Your task to perform on an android device: allow notifications from all sites in the chrome app Image 0: 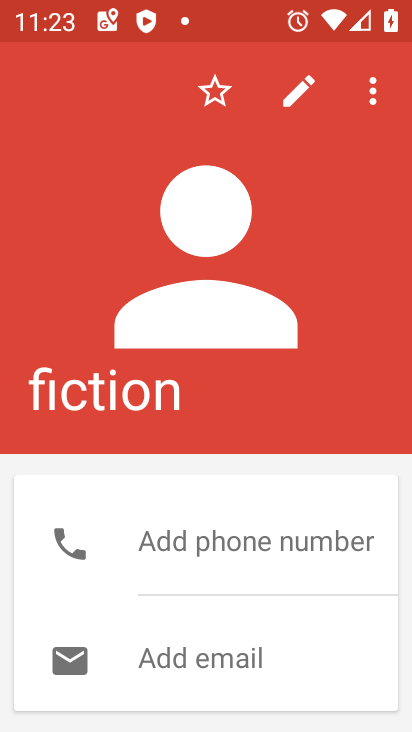
Step 0: press home button
Your task to perform on an android device: allow notifications from all sites in the chrome app Image 1: 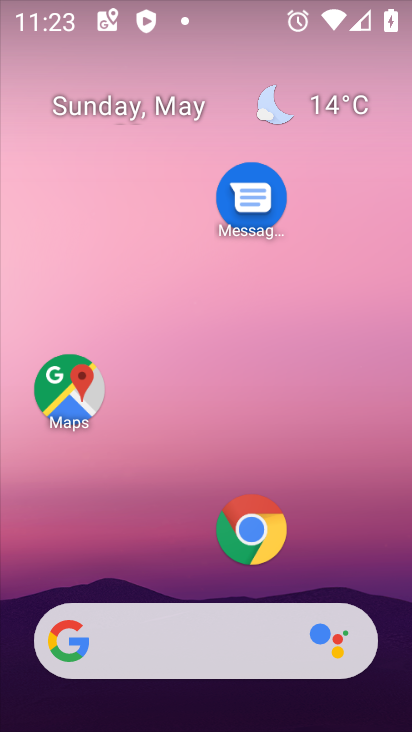
Step 1: click (236, 545)
Your task to perform on an android device: allow notifications from all sites in the chrome app Image 2: 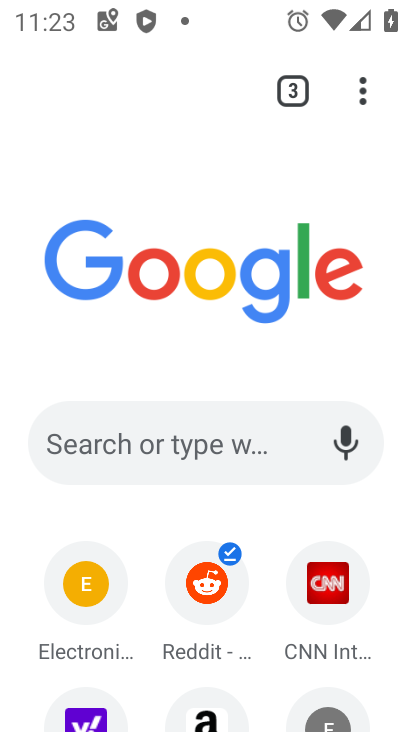
Step 2: click (354, 94)
Your task to perform on an android device: allow notifications from all sites in the chrome app Image 3: 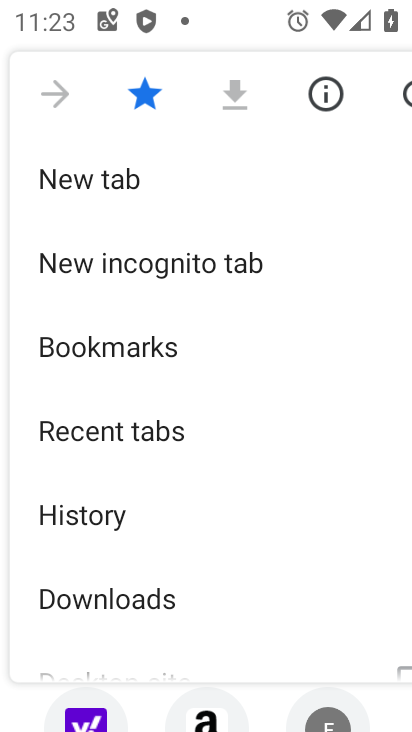
Step 3: drag from (132, 481) to (167, 255)
Your task to perform on an android device: allow notifications from all sites in the chrome app Image 4: 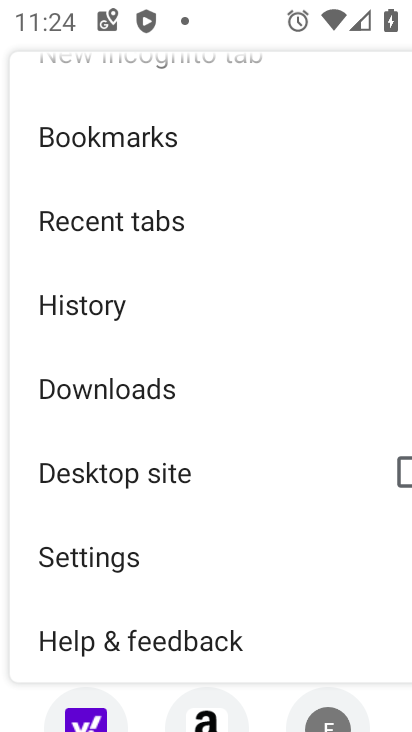
Step 4: click (123, 546)
Your task to perform on an android device: allow notifications from all sites in the chrome app Image 5: 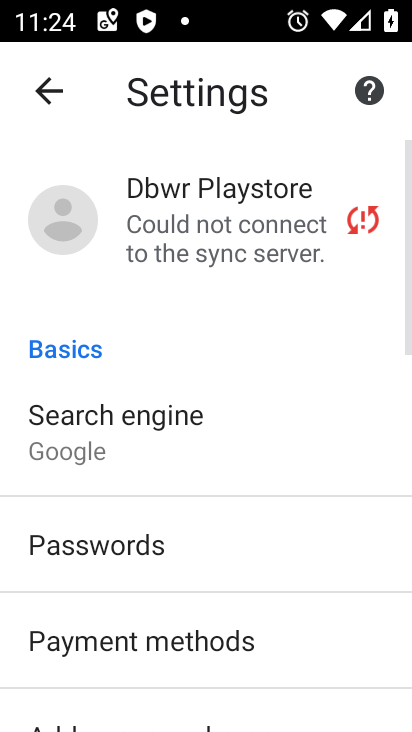
Step 5: drag from (153, 481) to (198, 246)
Your task to perform on an android device: allow notifications from all sites in the chrome app Image 6: 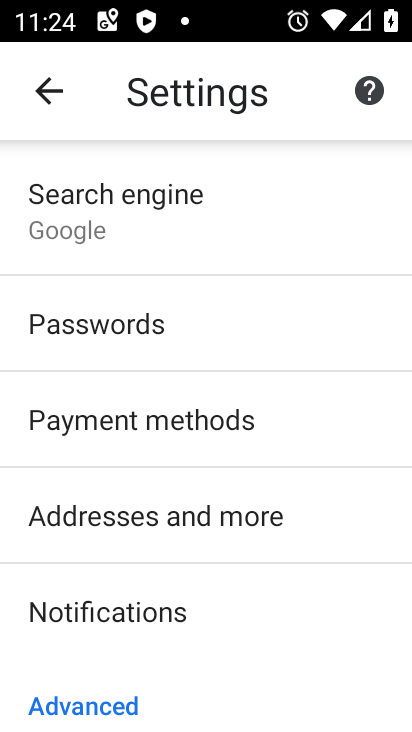
Step 6: click (153, 615)
Your task to perform on an android device: allow notifications from all sites in the chrome app Image 7: 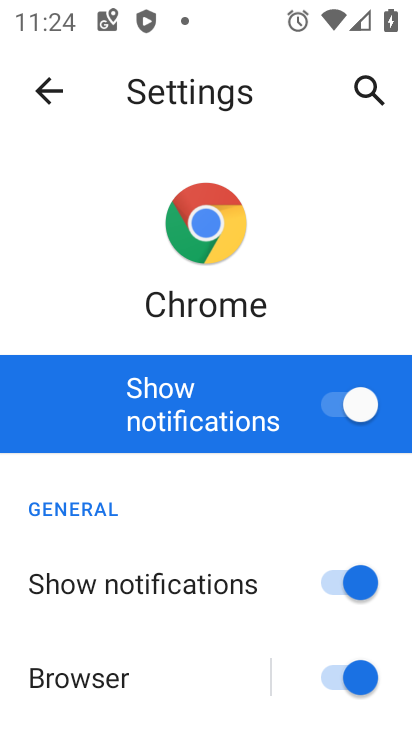
Step 7: task complete